Your task to perform on an android device: open a bookmark in the chrome app Image 0: 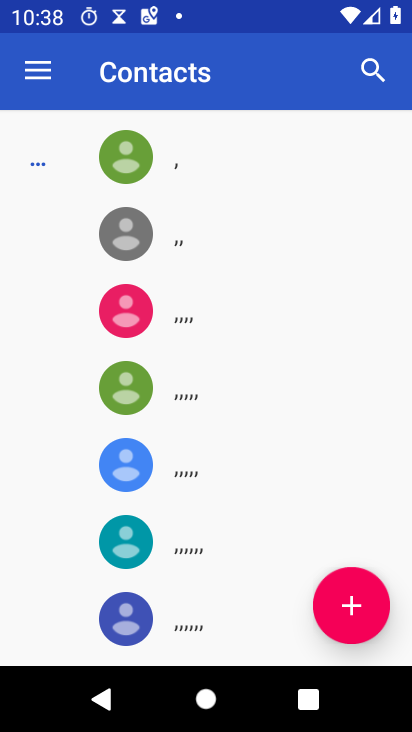
Step 0: press back button
Your task to perform on an android device: open a bookmark in the chrome app Image 1: 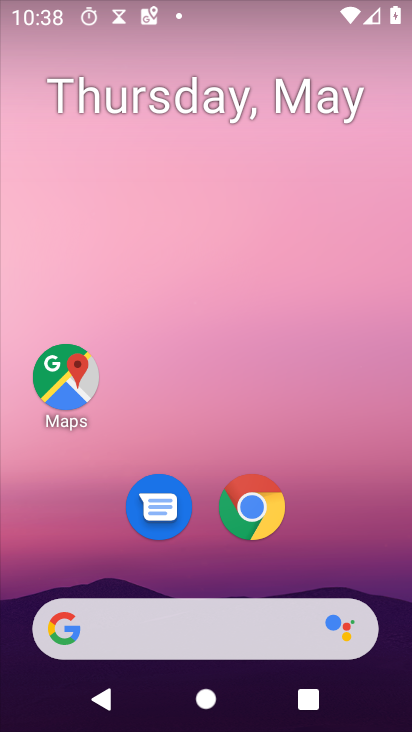
Step 1: drag from (319, 567) to (251, 1)
Your task to perform on an android device: open a bookmark in the chrome app Image 2: 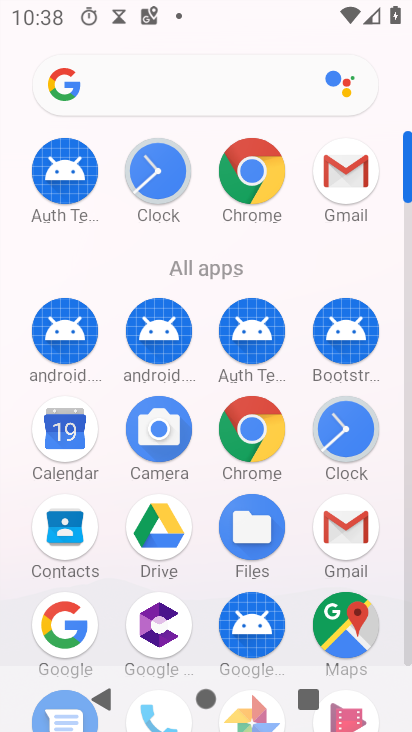
Step 2: click (250, 426)
Your task to perform on an android device: open a bookmark in the chrome app Image 3: 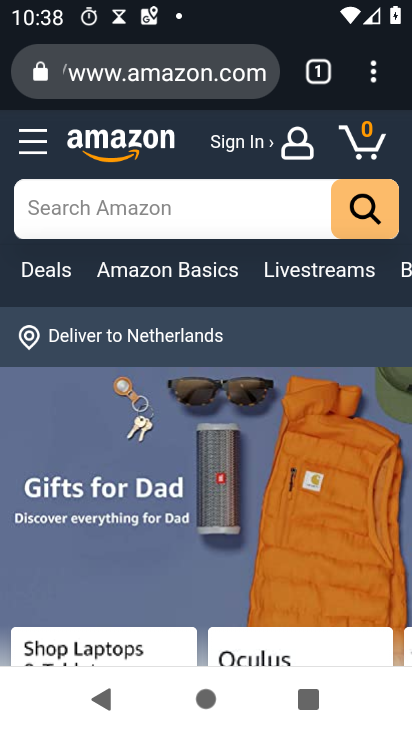
Step 3: task complete